Your task to perform on an android device: toggle location history Image 0: 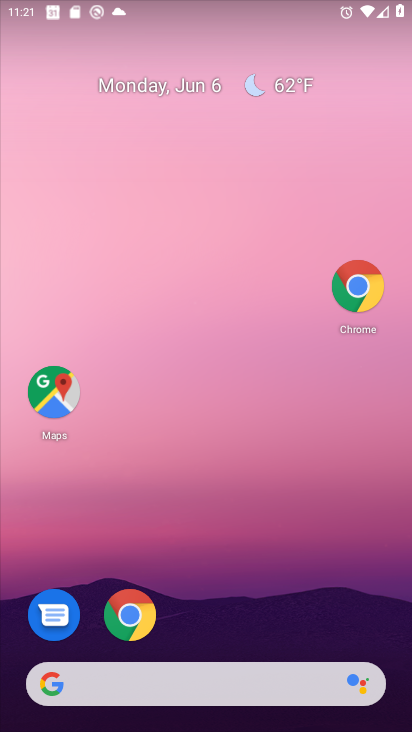
Step 0: drag from (265, 565) to (132, 91)
Your task to perform on an android device: toggle location history Image 1: 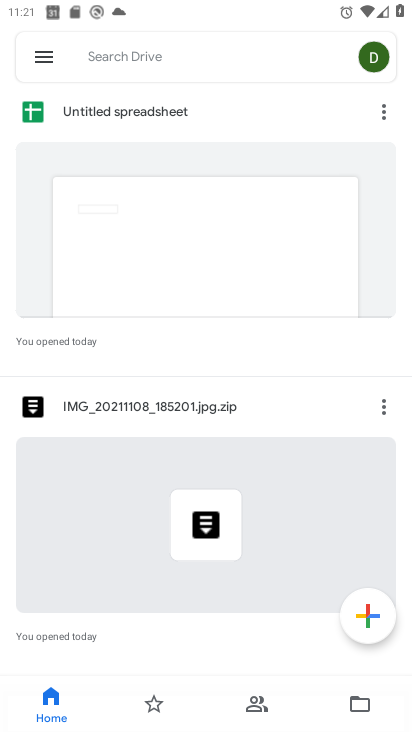
Step 1: press back button
Your task to perform on an android device: toggle location history Image 2: 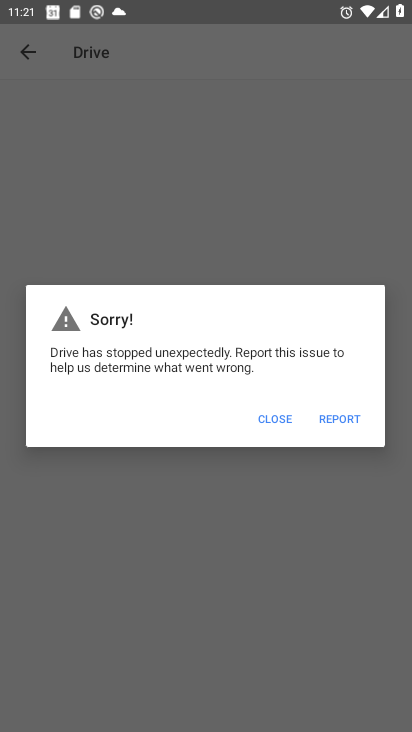
Step 2: click (271, 414)
Your task to perform on an android device: toggle location history Image 3: 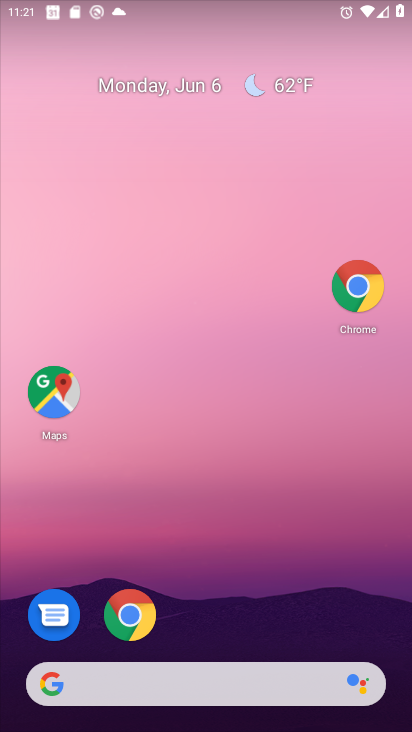
Step 3: drag from (189, 478) to (68, 135)
Your task to perform on an android device: toggle location history Image 4: 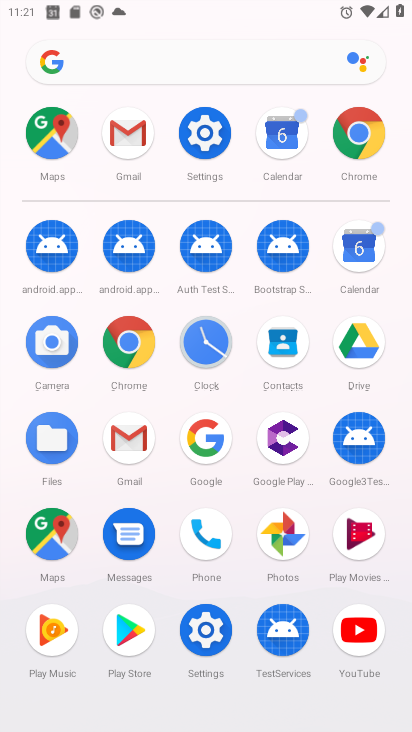
Step 4: click (195, 144)
Your task to perform on an android device: toggle location history Image 5: 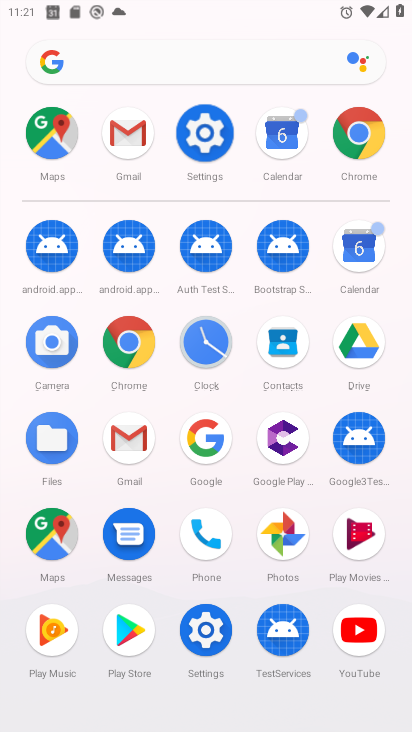
Step 5: click (195, 144)
Your task to perform on an android device: toggle location history Image 6: 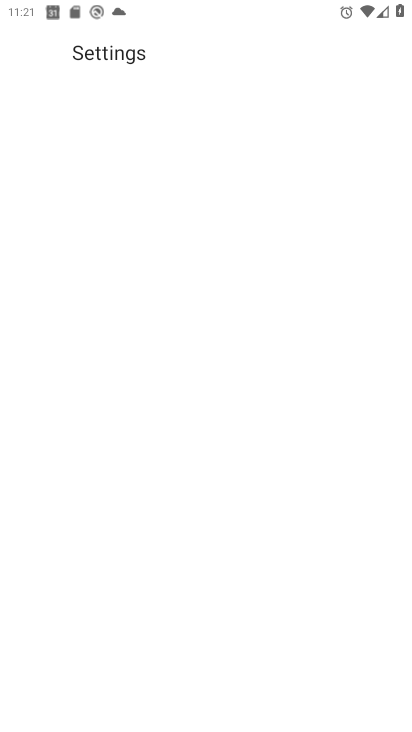
Step 6: click (195, 144)
Your task to perform on an android device: toggle location history Image 7: 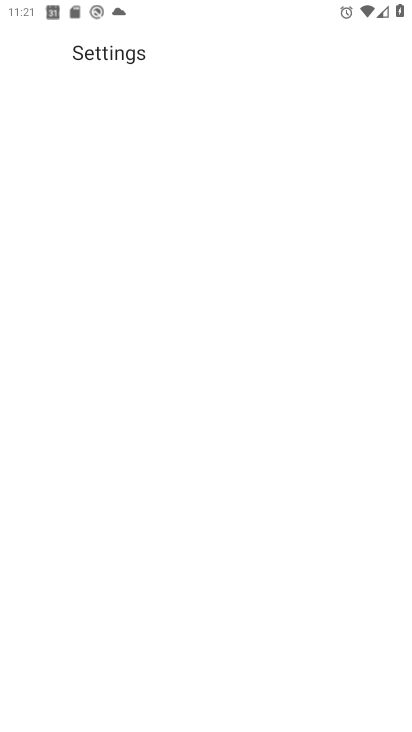
Step 7: click (194, 137)
Your task to perform on an android device: toggle location history Image 8: 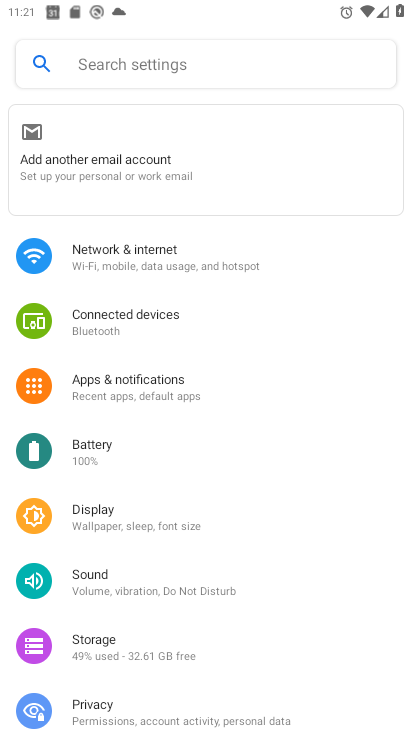
Step 8: click (195, 134)
Your task to perform on an android device: toggle location history Image 9: 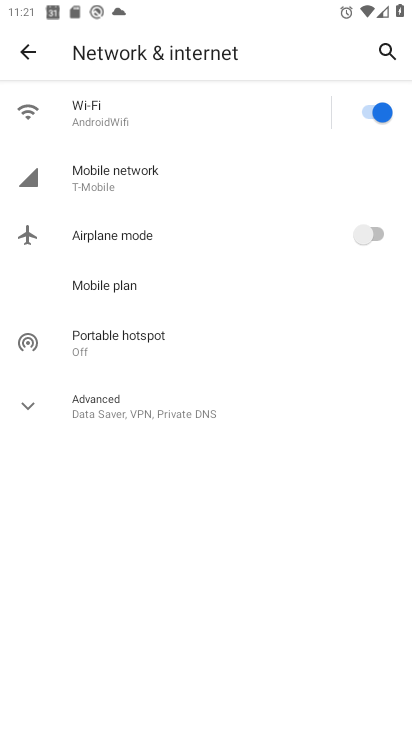
Step 9: click (32, 42)
Your task to perform on an android device: toggle location history Image 10: 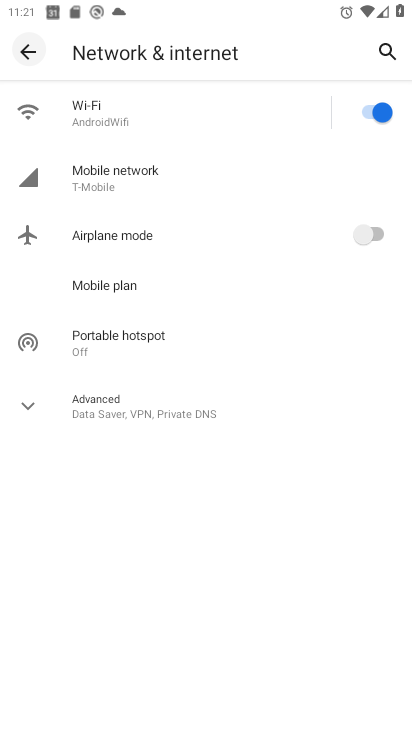
Step 10: click (30, 44)
Your task to perform on an android device: toggle location history Image 11: 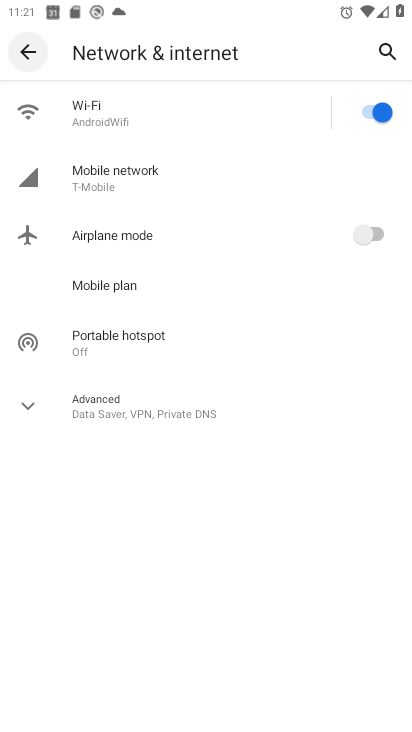
Step 11: click (25, 50)
Your task to perform on an android device: toggle location history Image 12: 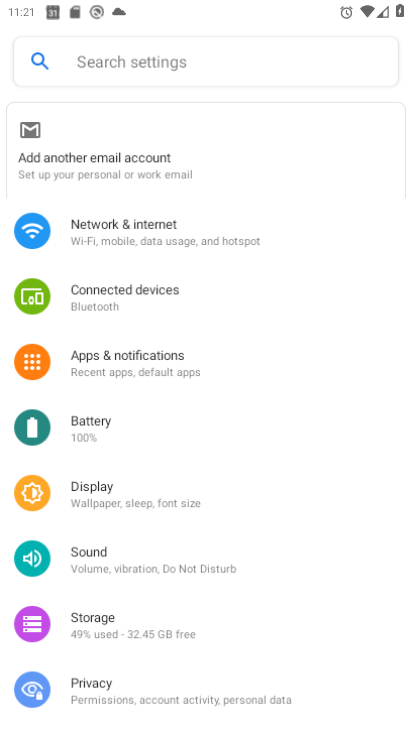
Step 12: click (25, 50)
Your task to perform on an android device: toggle location history Image 13: 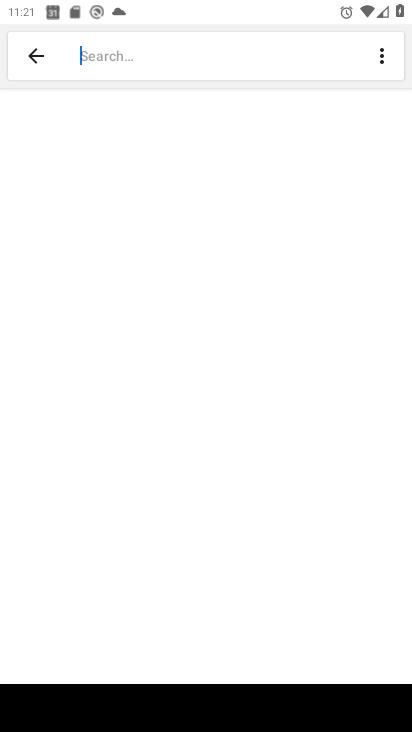
Step 13: click (26, 54)
Your task to perform on an android device: toggle location history Image 14: 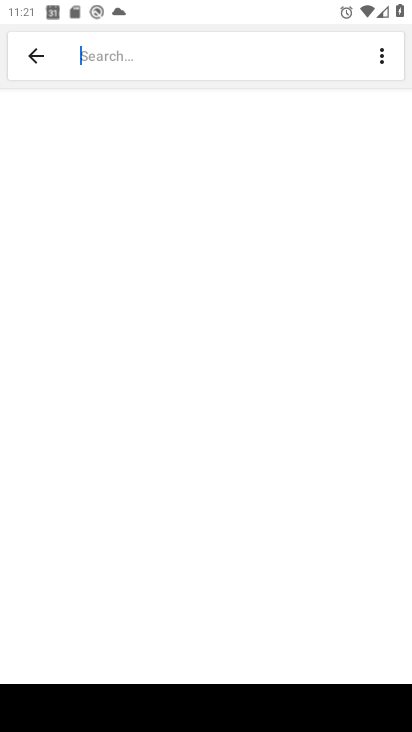
Step 14: click (30, 56)
Your task to perform on an android device: toggle location history Image 15: 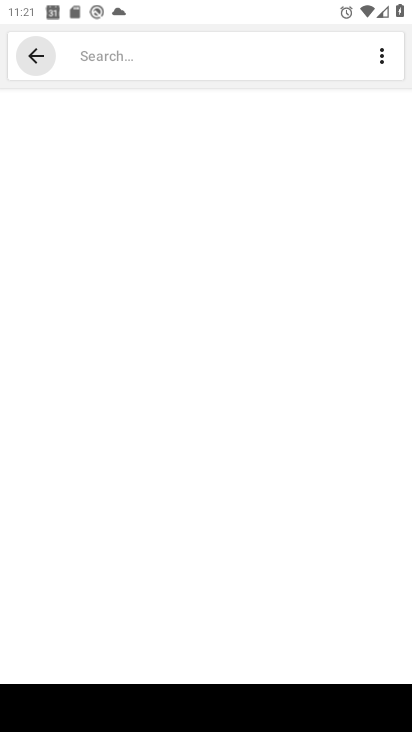
Step 15: click (32, 63)
Your task to perform on an android device: toggle location history Image 16: 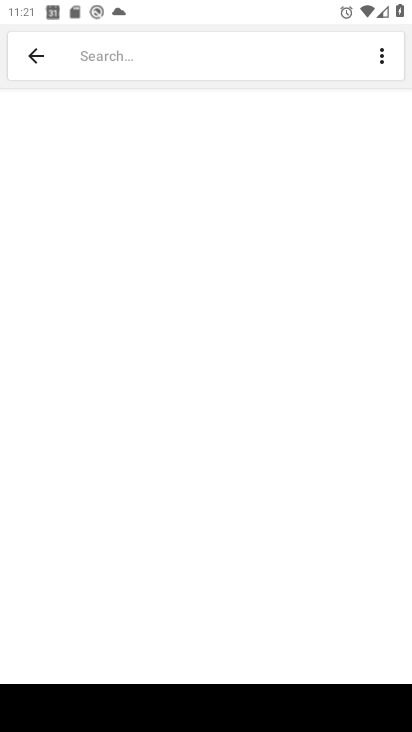
Step 16: click (32, 64)
Your task to perform on an android device: toggle location history Image 17: 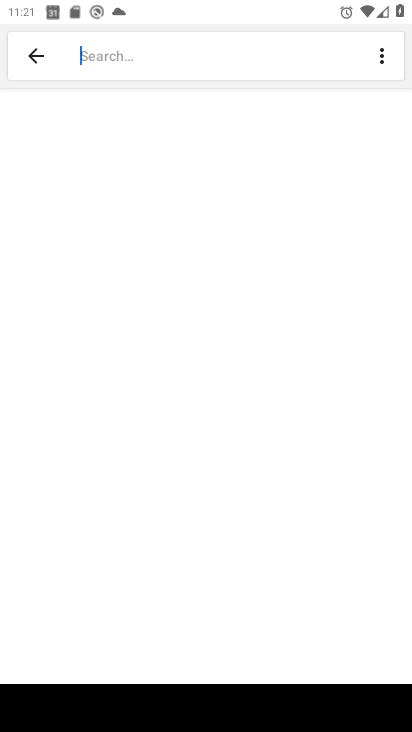
Step 17: click (33, 54)
Your task to perform on an android device: toggle location history Image 18: 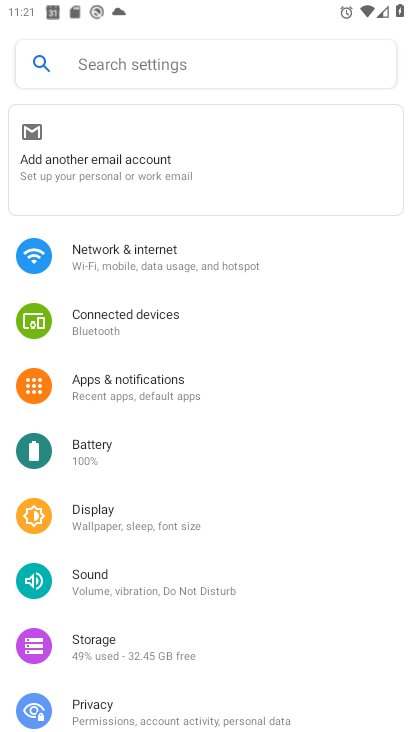
Step 18: drag from (99, 600) to (62, 164)
Your task to perform on an android device: toggle location history Image 19: 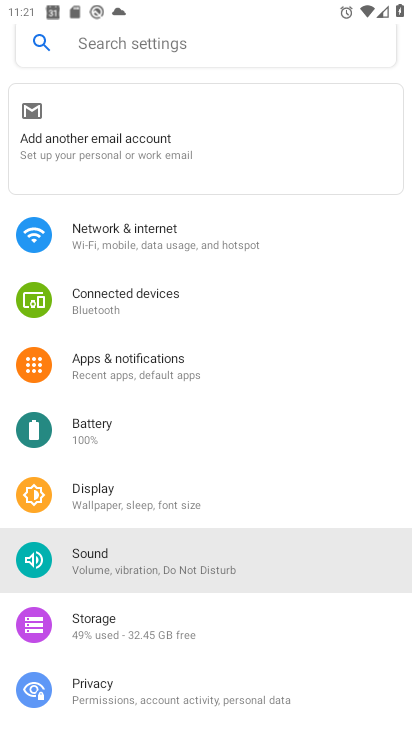
Step 19: drag from (157, 549) to (139, 50)
Your task to perform on an android device: toggle location history Image 20: 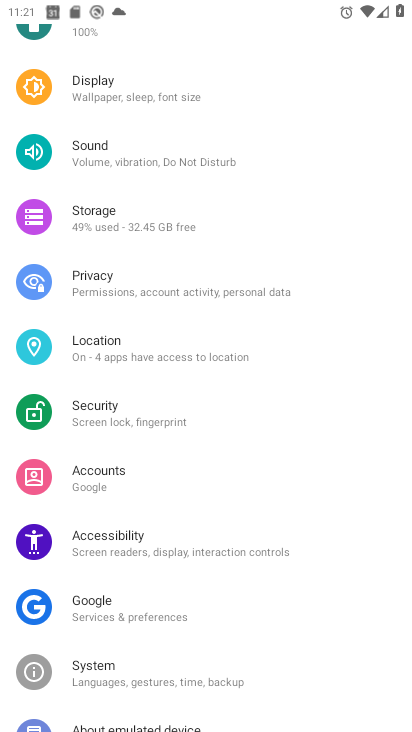
Step 20: drag from (108, 396) to (64, 94)
Your task to perform on an android device: toggle location history Image 21: 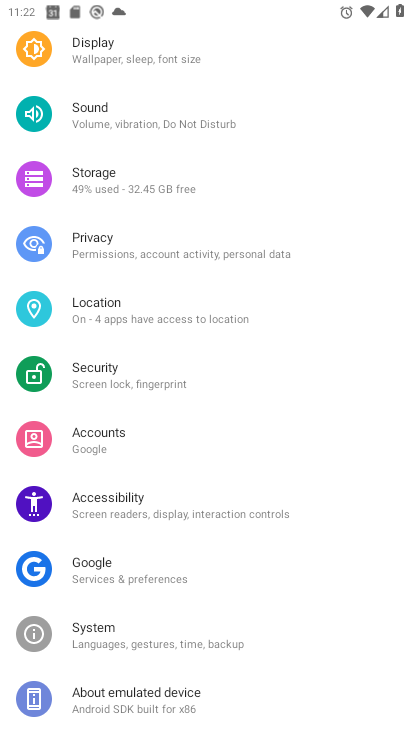
Step 21: click (99, 322)
Your task to perform on an android device: toggle location history Image 22: 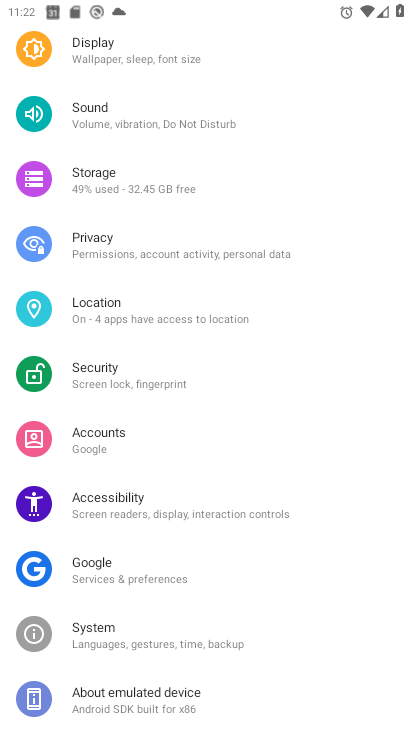
Step 22: click (98, 321)
Your task to perform on an android device: toggle location history Image 23: 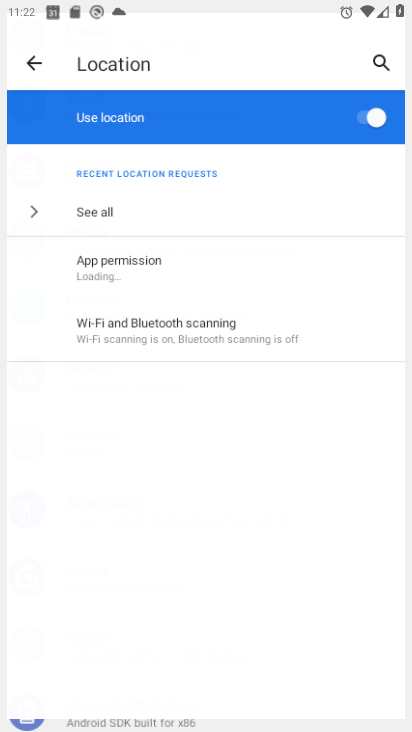
Step 23: click (98, 321)
Your task to perform on an android device: toggle location history Image 24: 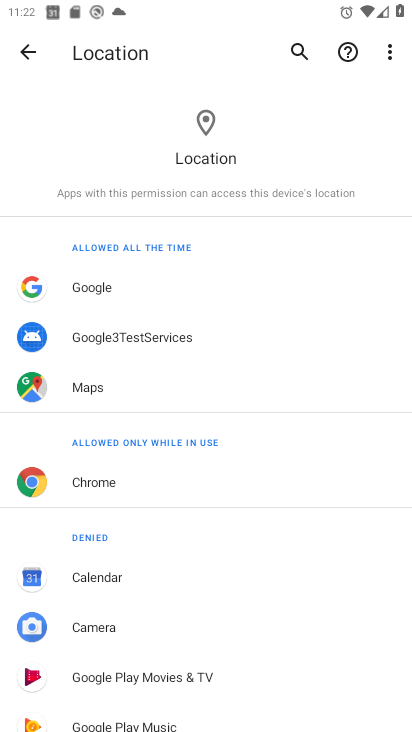
Step 24: drag from (111, 502) to (80, 106)
Your task to perform on an android device: toggle location history Image 25: 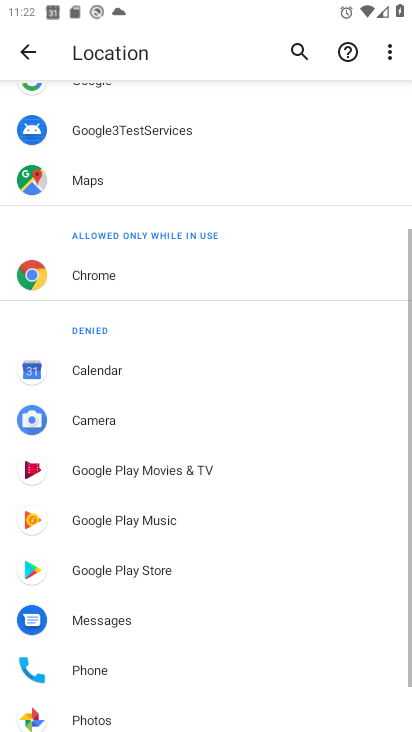
Step 25: drag from (145, 509) to (110, 107)
Your task to perform on an android device: toggle location history Image 26: 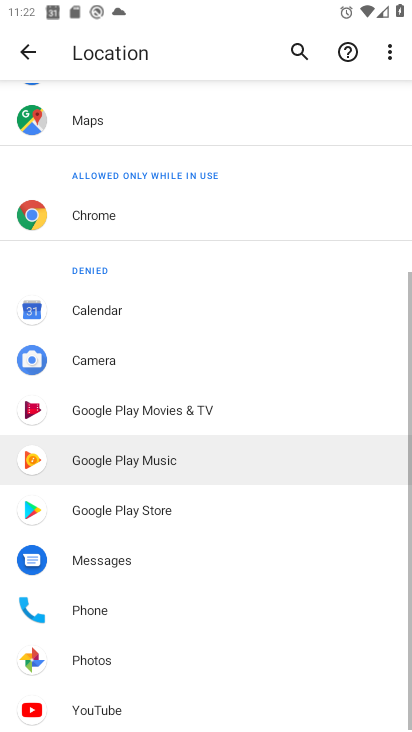
Step 26: drag from (162, 417) to (145, 60)
Your task to perform on an android device: toggle location history Image 27: 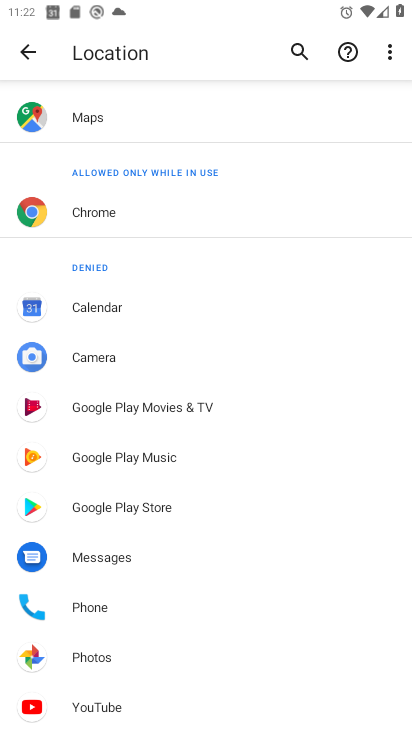
Step 27: click (21, 60)
Your task to perform on an android device: toggle location history Image 28: 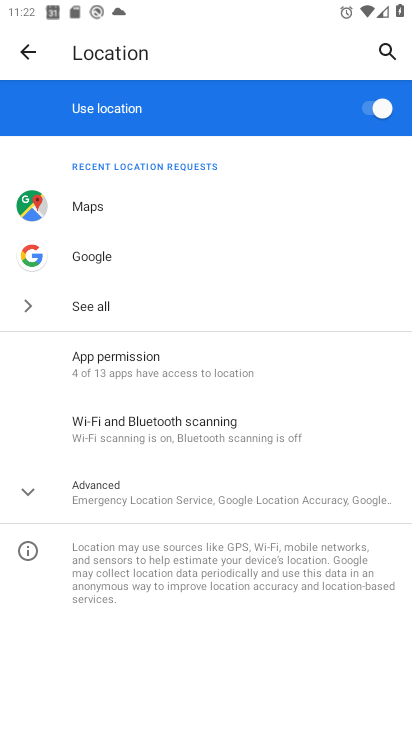
Step 28: click (103, 490)
Your task to perform on an android device: toggle location history Image 29: 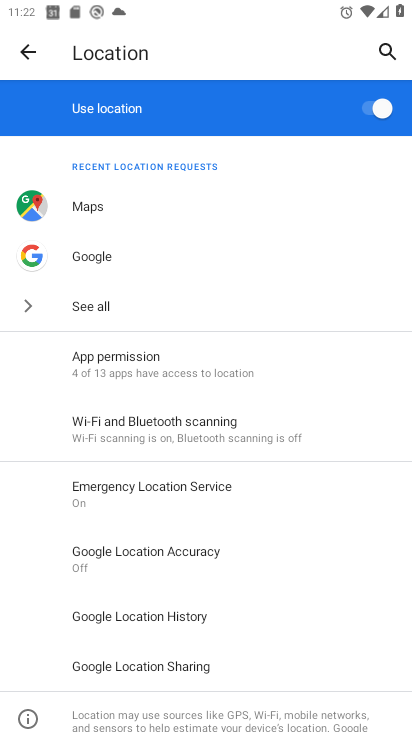
Step 29: click (154, 543)
Your task to perform on an android device: toggle location history Image 30: 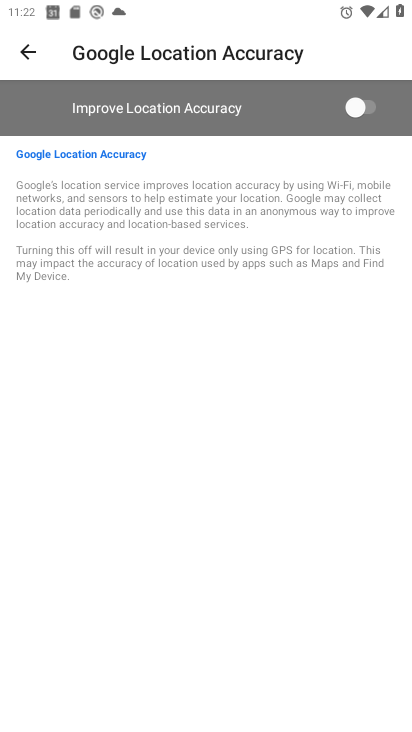
Step 30: click (32, 62)
Your task to perform on an android device: toggle location history Image 31: 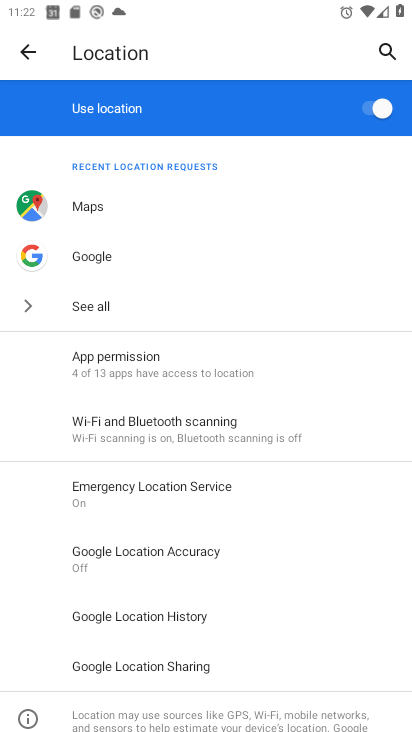
Step 31: click (145, 618)
Your task to perform on an android device: toggle location history Image 32: 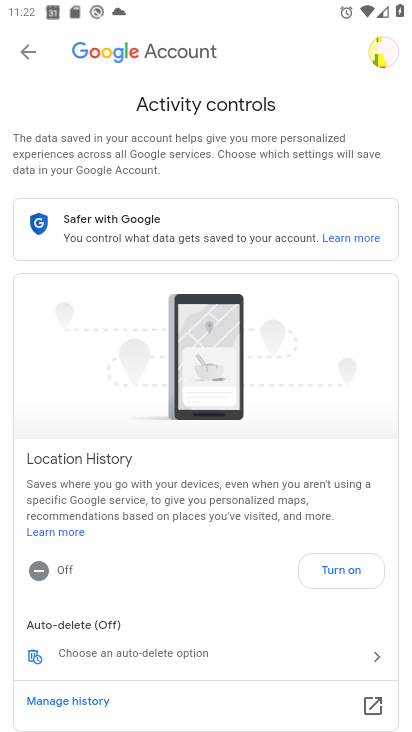
Step 32: click (336, 572)
Your task to perform on an android device: toggle location history Image 33: 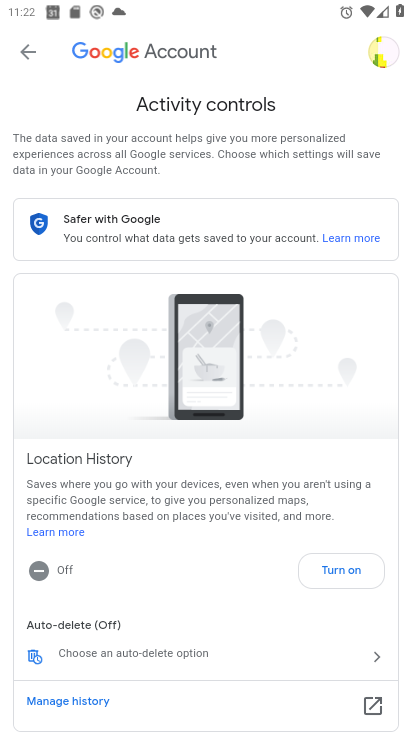
Step 33: click (336, 572)
Your task to perform on an android device: toggle location history Image 34: 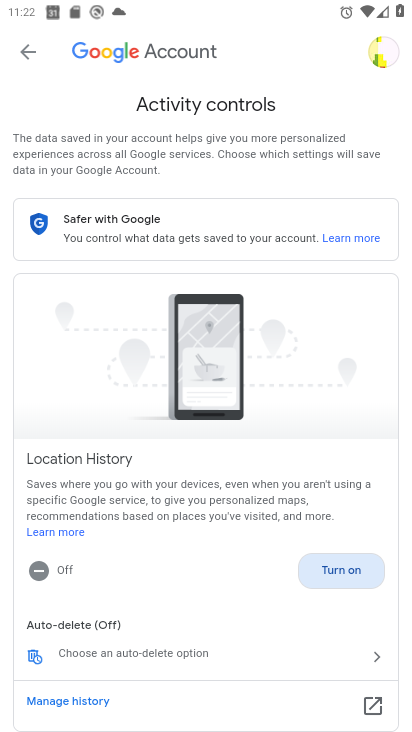
Step 34: click (336, 572)
Your task to perform on an android device: toggle location history Image 35: 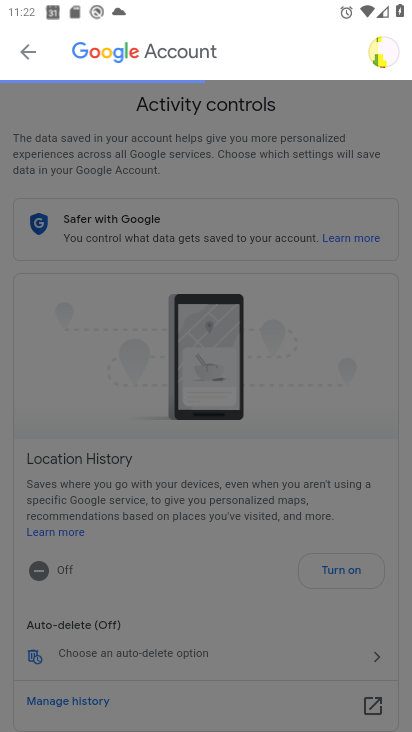
Step 35: click (335, 571)
Your task to perform on an android device: toggle location history Image 36: 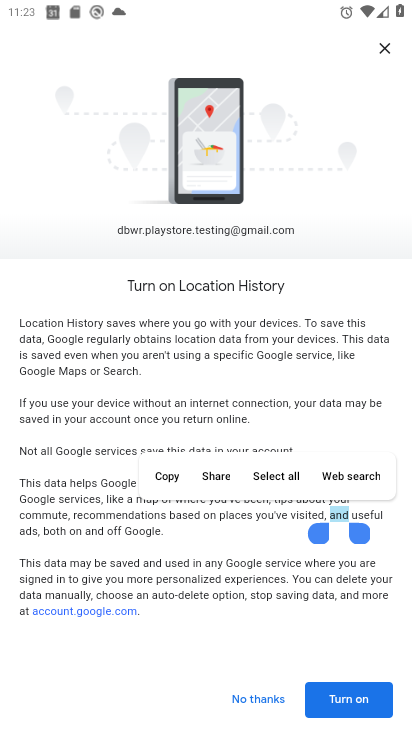
Step 36: drag from (345, 661) to (282, 283)
Your task to perform on an android device: toggle location history Image 37: 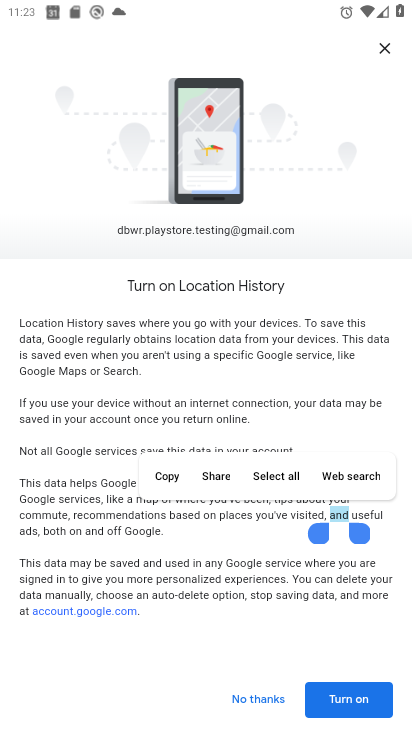
Step 37: click (362, 698)
Your task to perform on an android device: toggle location history Image 38: 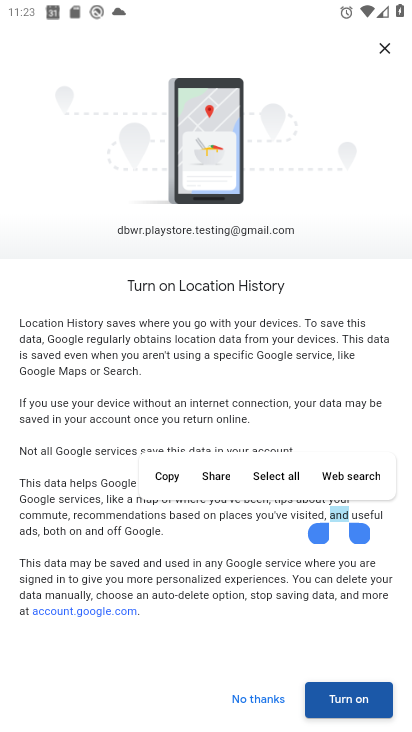
Step 38: task complete